Your task to perform on an android device: Search for "logitech g910" on amazon, select the first entry, and add it to the cart. Image 0: 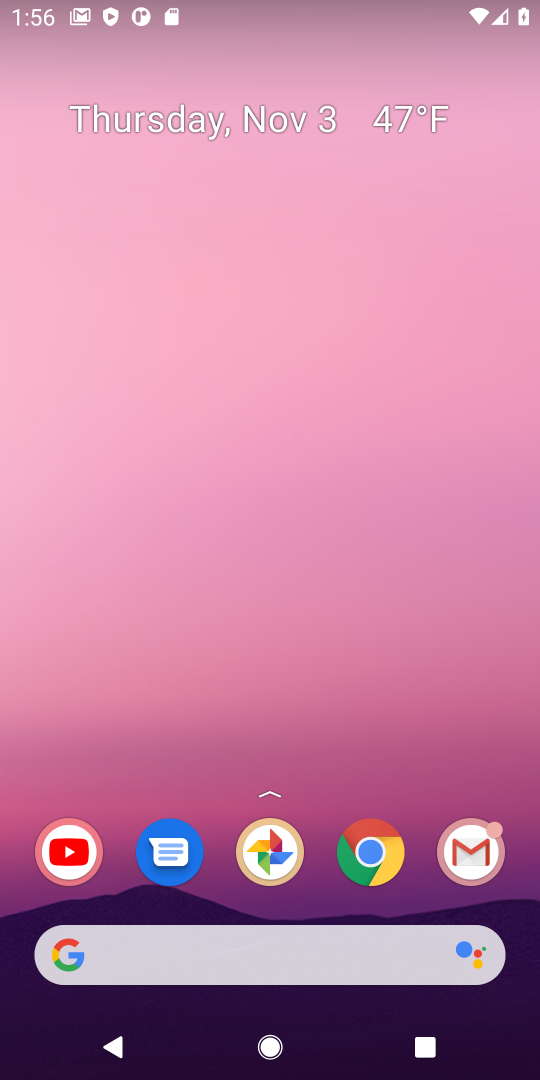
Step 0: click (381, 860)
Your task to perform on an android device: Search for "logitech g910" on amazon, select the first entry, and add it to the cart. Image 1: 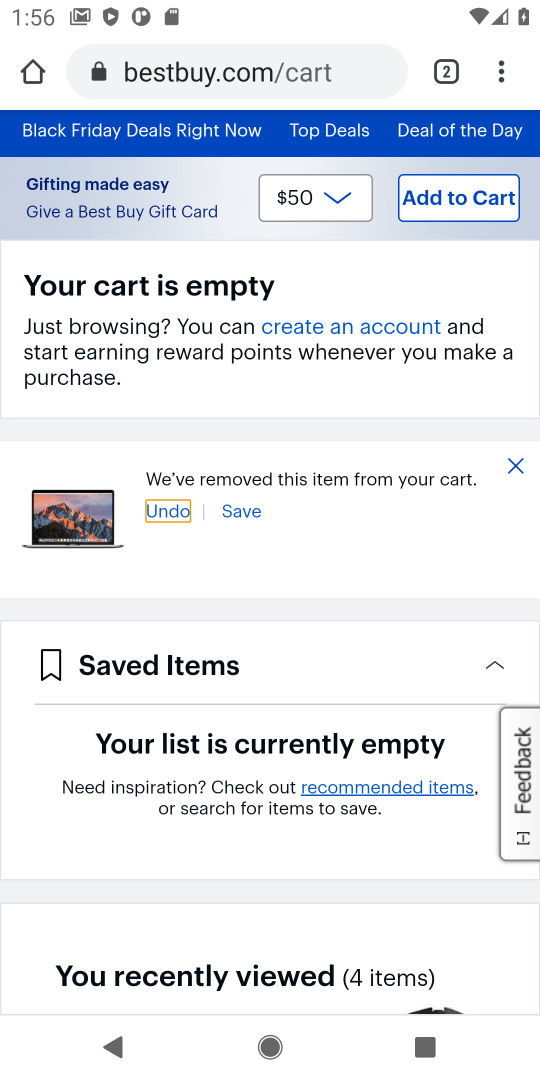
Step 1: click (196, 68)
Your task to perform on an android device: Search for "logitech g910" on amazon, select the first entry, and add it to the cart. Image 2: 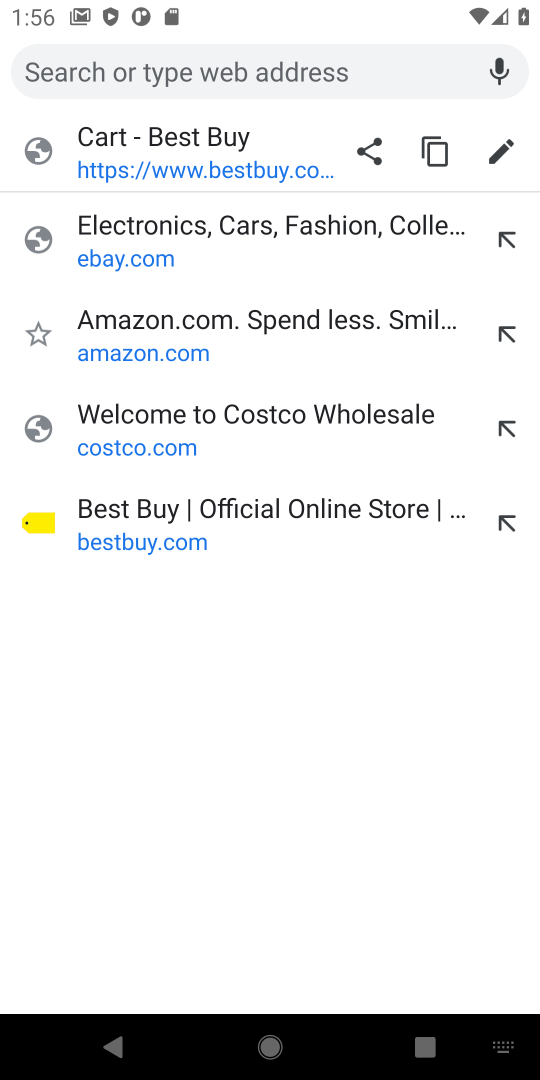
Step 2: type "amazon.com"
Your task to perform on an android device: Search for "logitech g910" on amazon, select the first entry, and add it to the cart. Image 3: 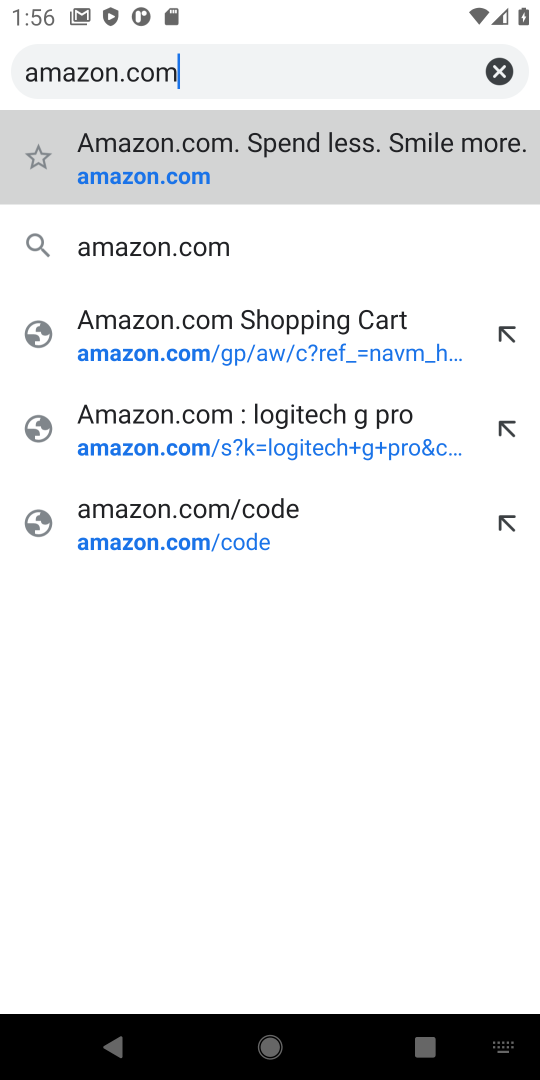
Step 3: click (184, 173)
Your task to perform on an android device: Search for "logitech g910" on amazon, select the first entry, and add it to the cart. Image 4: 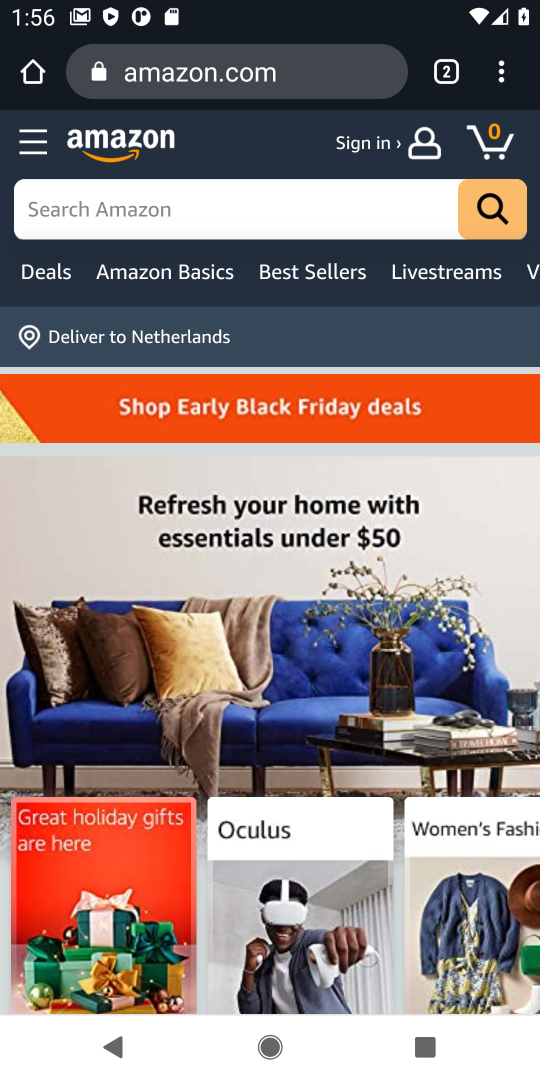
Step 4: click (204, 210)
Your task to perform on an android device: Search for "logitech g910" on amazon, select the first entry, and add it to the cart. Image 5: 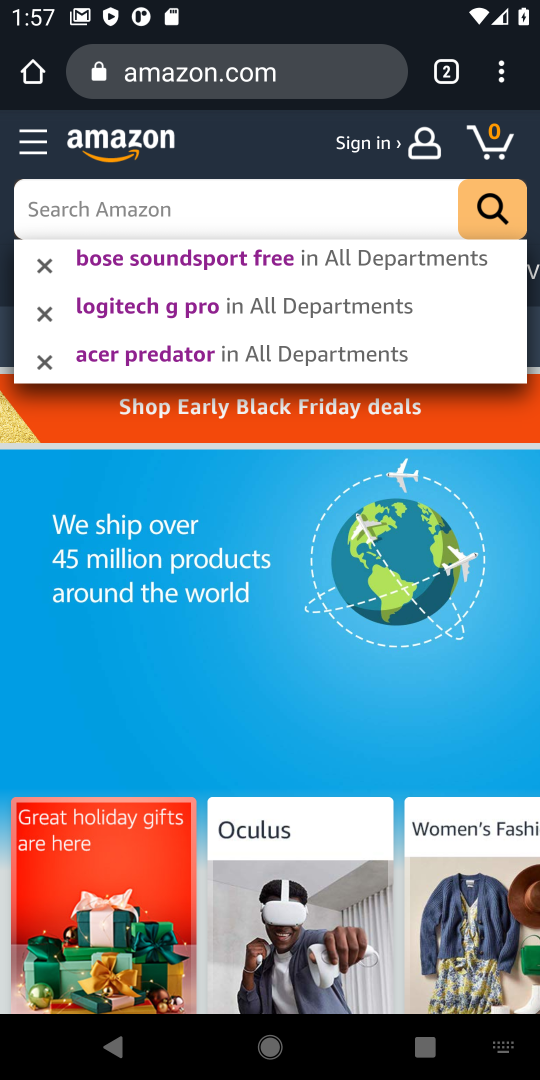
Step 5: type "logitech g910"
Your task to perform on an android device: Search for "logitech g910" on amazon, select the first entry, and add it to the cart. Image 6: 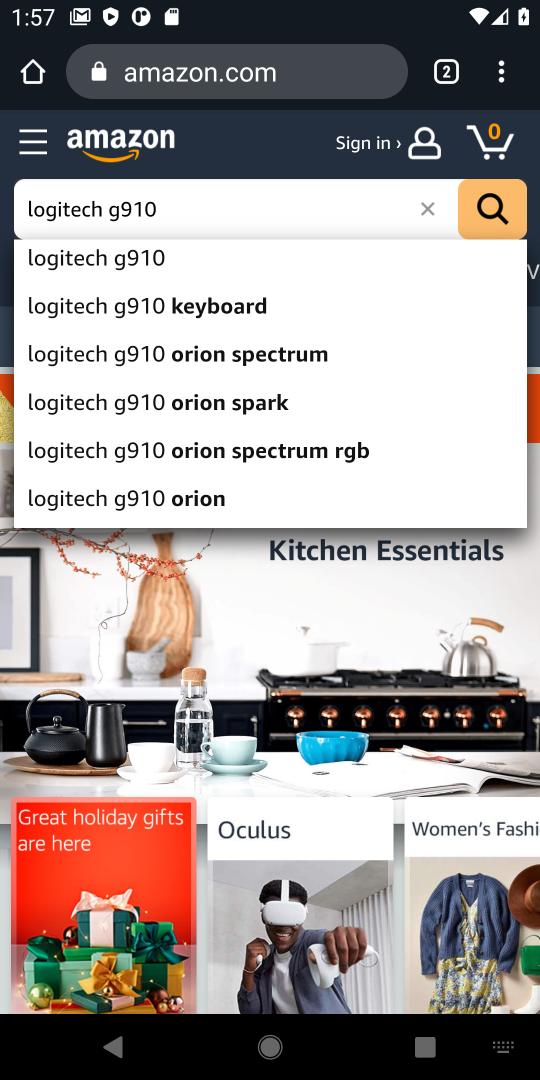
Step 6: click (130, 255)
Your task to perform on an android device: Search for "logitech g910" on amazon, select the first entry, and add it to the cart. Image 7: 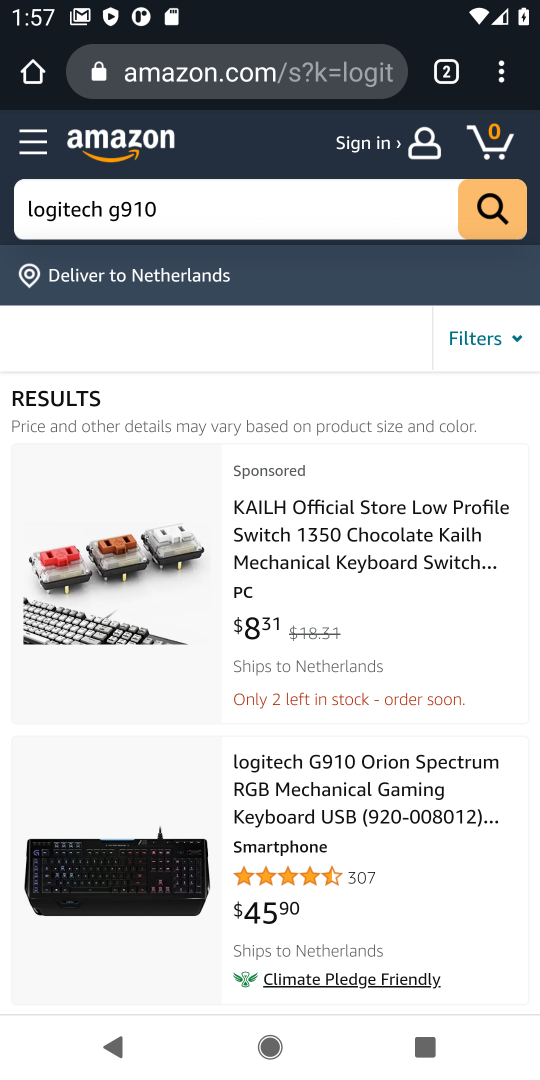
Step 7: click (162, 900)
Your task to perform on an android device: Search for "logitech g910" on amazon, select the first entry, and add it to the cart. Image 8: 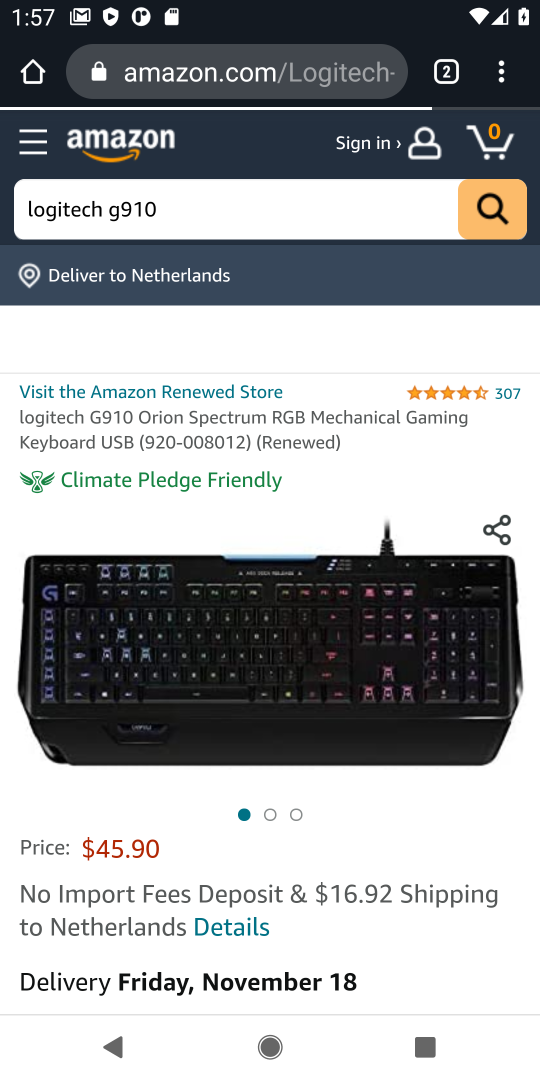
Step 8: drag from (209, 882) to (171, 924)
Your task to perform on an android device: Search for "logitech g910" on amazon, select the first entry, and add it to the cart. Image 9: 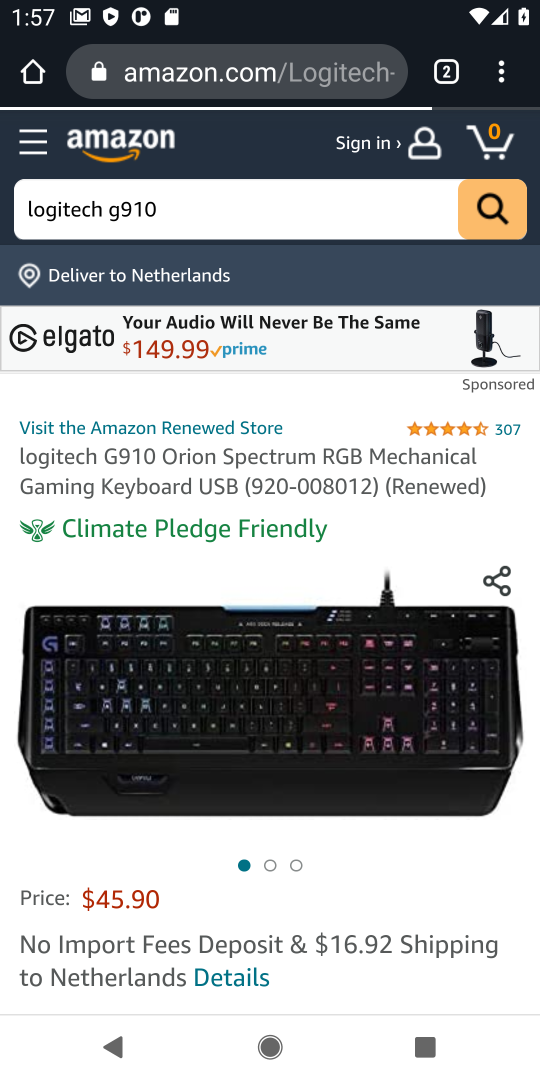
Step 9: drag from (171, 902) to (176, 420)
Your task to perform on an android device: Search for "logitech g910" on amazon, select the first entry, and add it to the cart. Image 10: 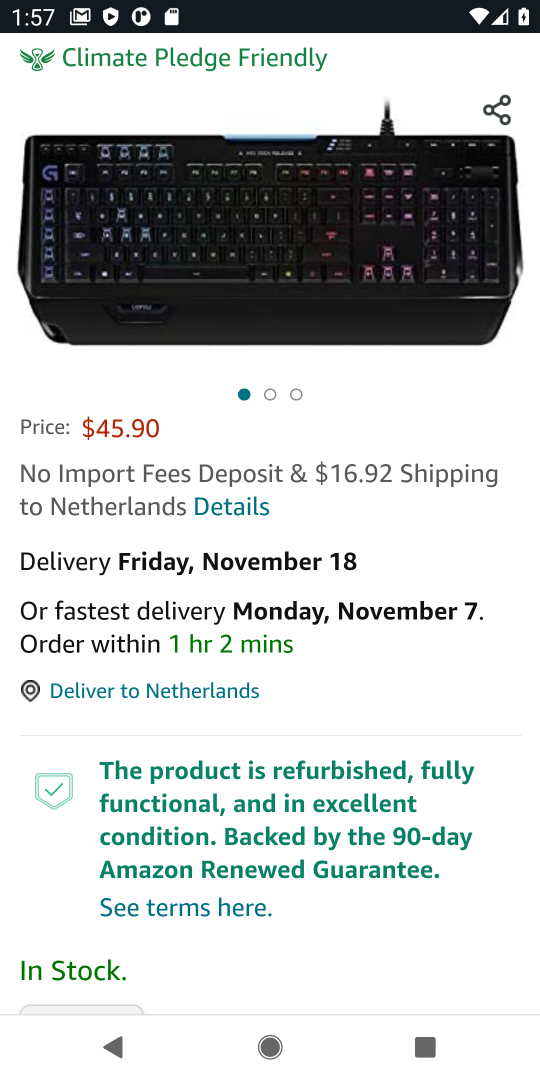
Step 10: drag from (212, 737) to (222, 337)
Your task to perform on an android device: Search for "logitech g910" on amazon, select the first entry, and add it to the cart. Image 11: 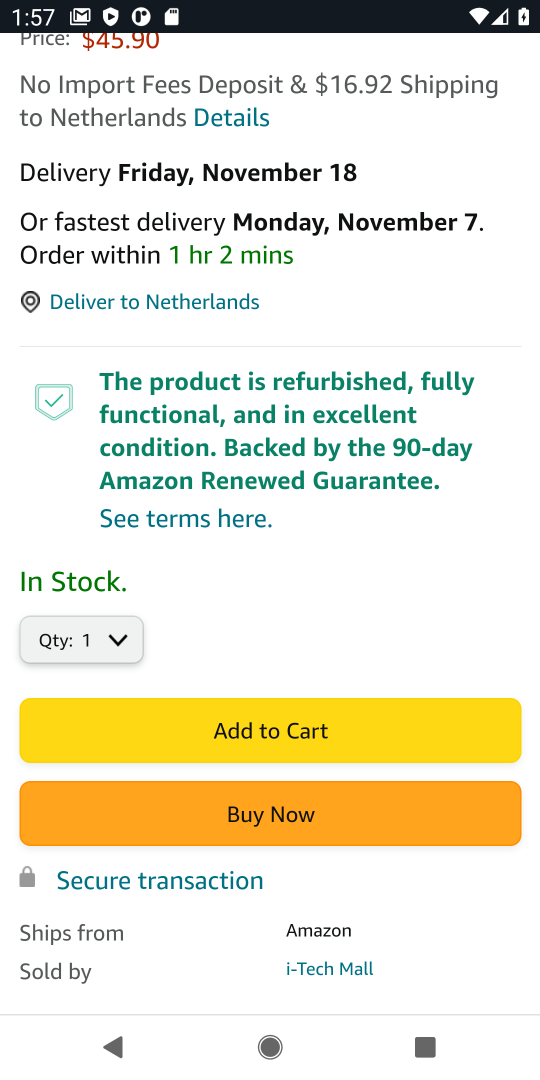
Step 11: click (258, 730)
Your task to perform on an android device: Search for "logitech g910" on amazon, select the first entry, and add it to the cart. Image 12: 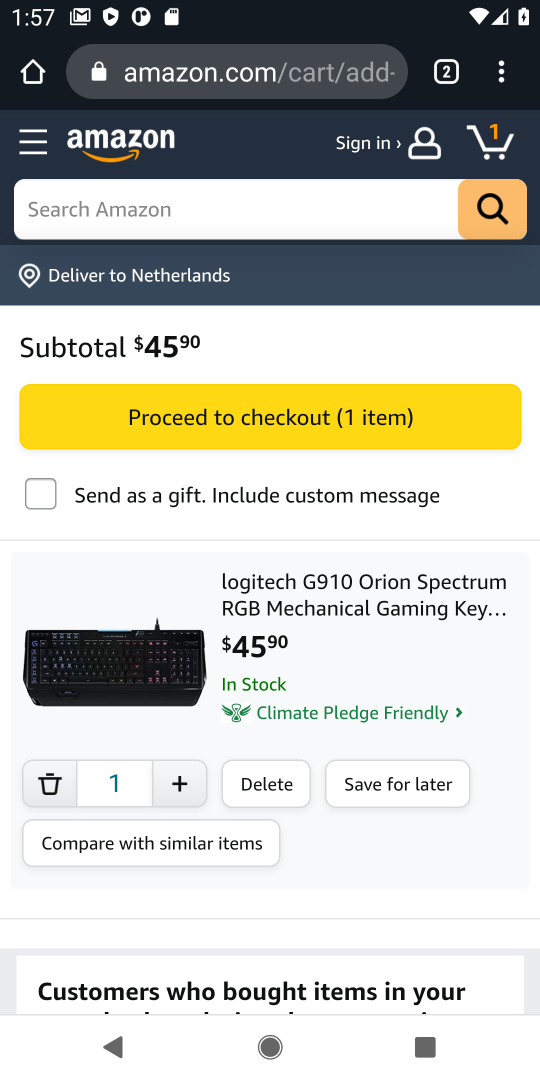
Step 12: task complete